Your task to perform on an android device: allow cookies in the chrome app Image 0: 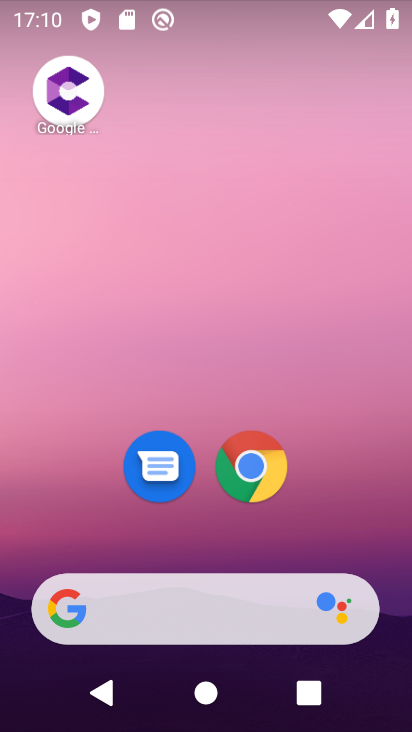
Step 0: click (250, 448)
Your task to perform on an android device: allow cookies in the chrome app Image 1: 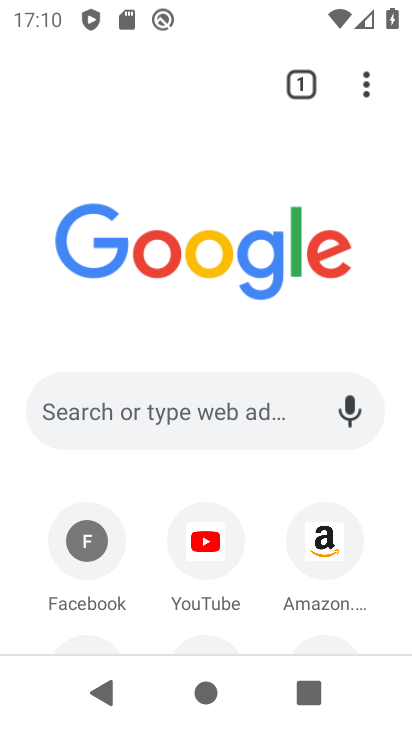
Step 1: click (363, 81)
Your task to perform on an android device: allow cookies in the chrome app Image 2: 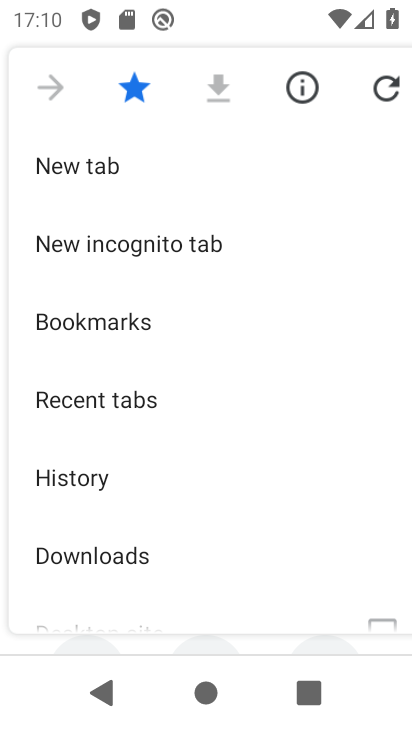
Step 2: drag from (201, 508) to (176, 258)
Your task to perform on an android device: allow cookies in the chrome app Image 3: 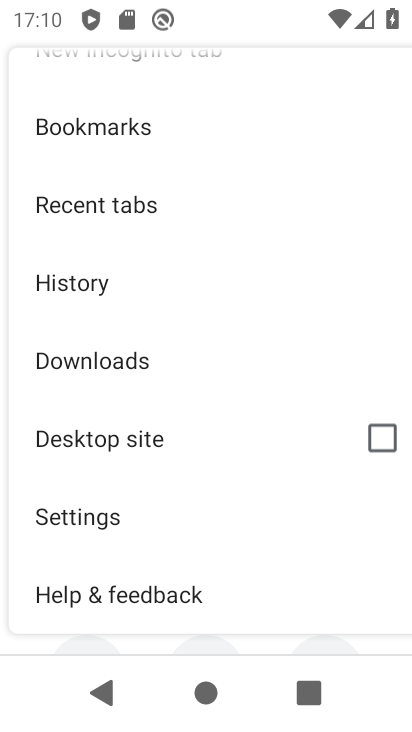
Step 3: click (71, 522)
Your task to perform on an android device: allow cookies in the chrome app Image 4: 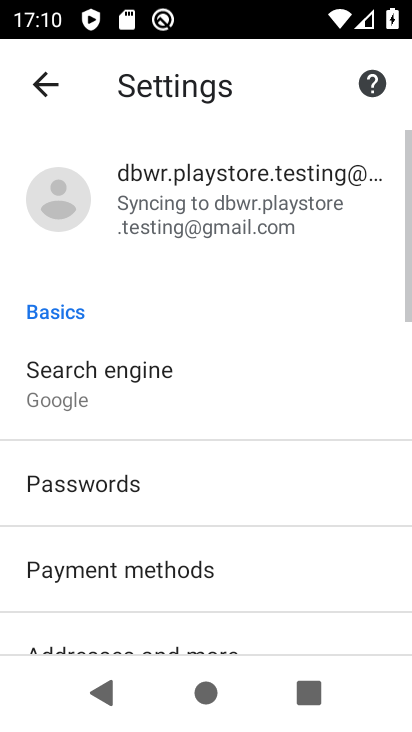
Step 4: drag from (226, 498) to (221, 185)
Your task to perform on an android device: allow cookies in the chrome app Image 5: 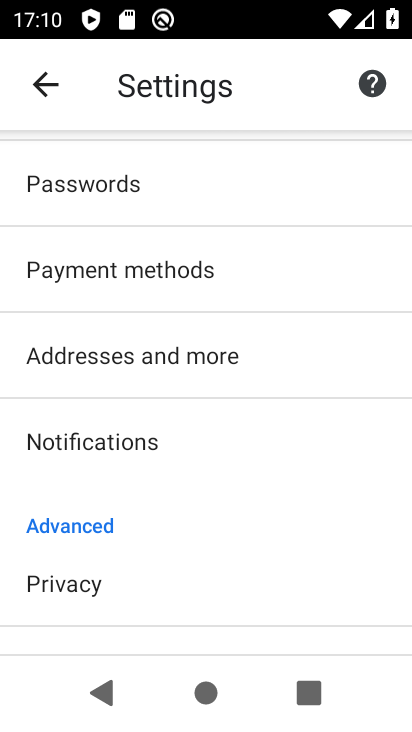
Step 5: drag from (282, 497) to (240, 182)
Your task to perform on an android device: allow cookies in the chrome app Image 6: 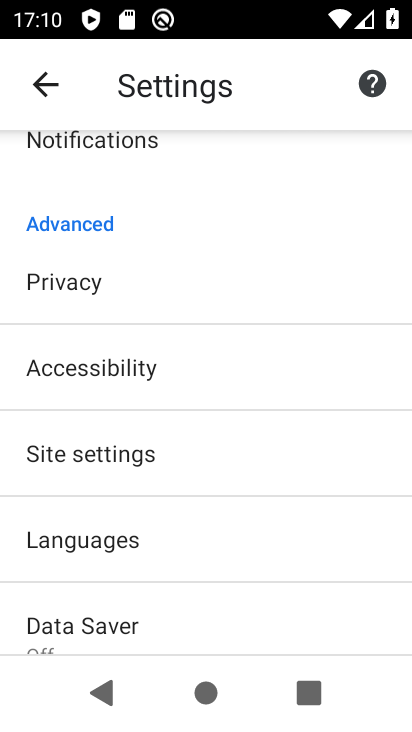
Step 6: click (108, 455)
Your task to perform on an android device: allow cookies in the chrome app Image 7: 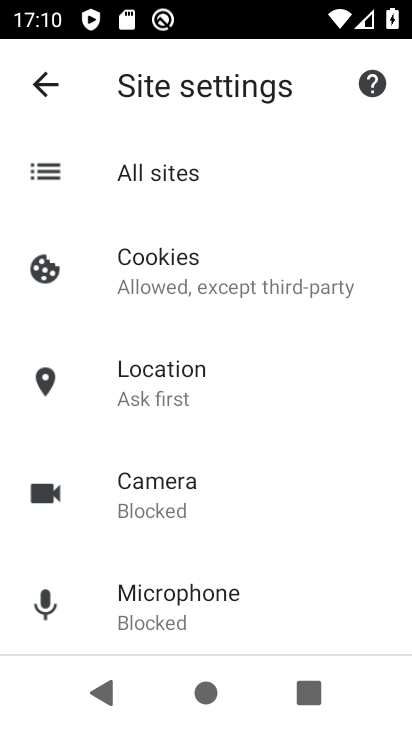
Step 7: click (167, 257)
Your task to perform on an android device: allow cookies in the chrome app Image 8: 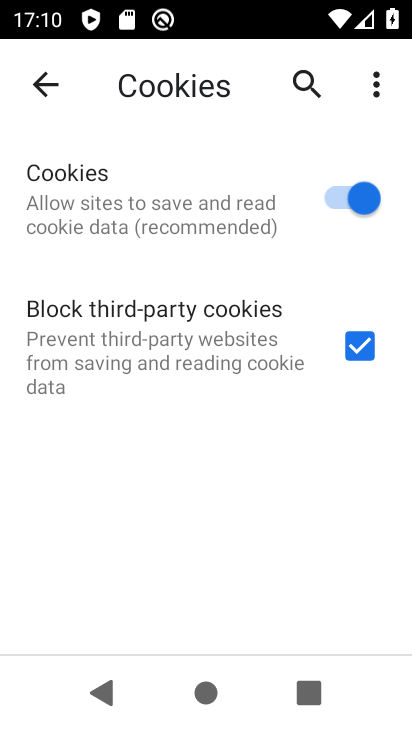
Step 8: task complete